Your task to perform on an android device: Check the news Image 0: 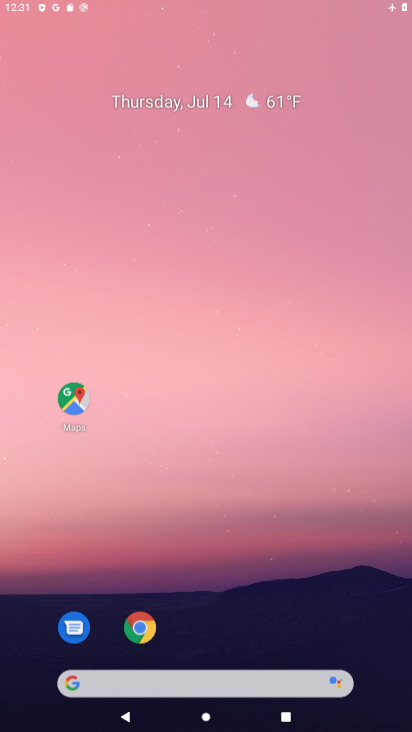
Step 0: click (159, 100)
Your task to perform on an android device: Check the news Image 1: 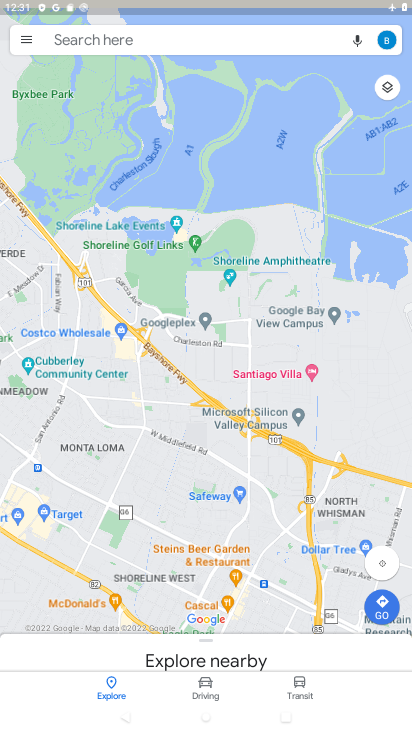
Step 1: press home button
Your task to perform on an android device: Check the news Image 2: 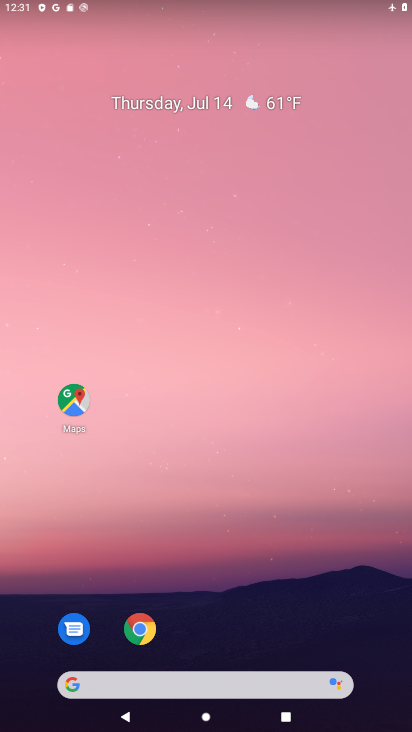
Step 2: click (91, 690)
Your task to perform on an android device: Check the news Image 3: 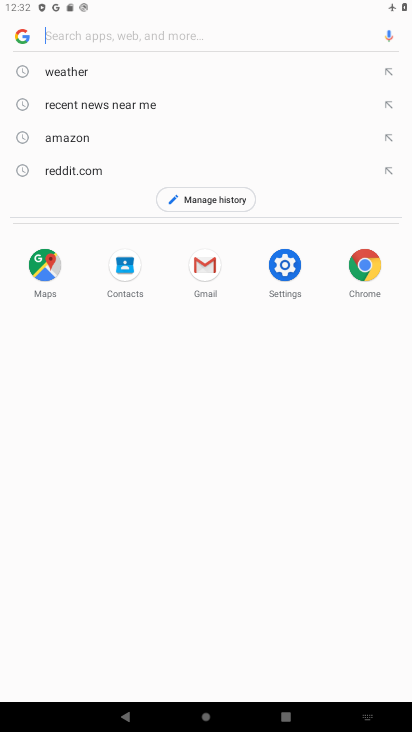
Step 3: click (34, 42)
Your task to perform on an android device: Check the news Image 4: 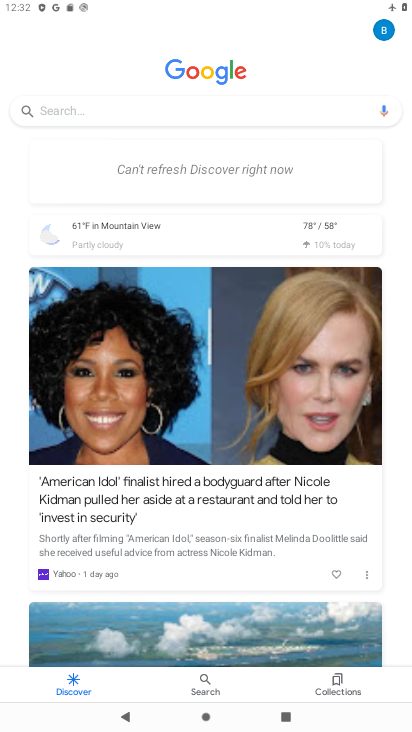
Step 4: task complete